Your task to perform on an android device: turn on improve location accuracy Image 0: 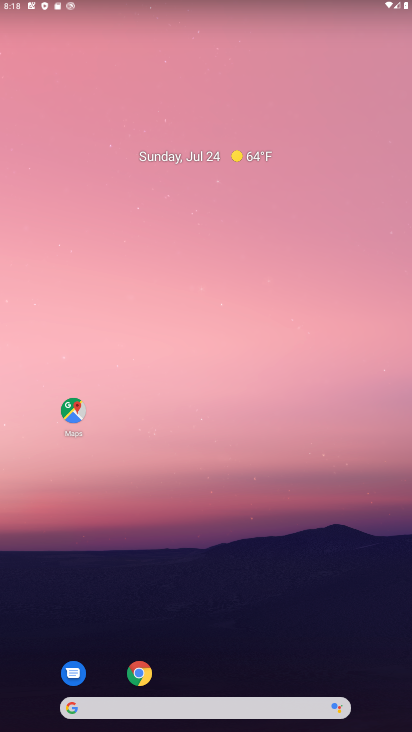
Step 0: drag from (381, 553) to (302, 99)
Your task to perform on an android device: turn on improve location accuracy Image 1: 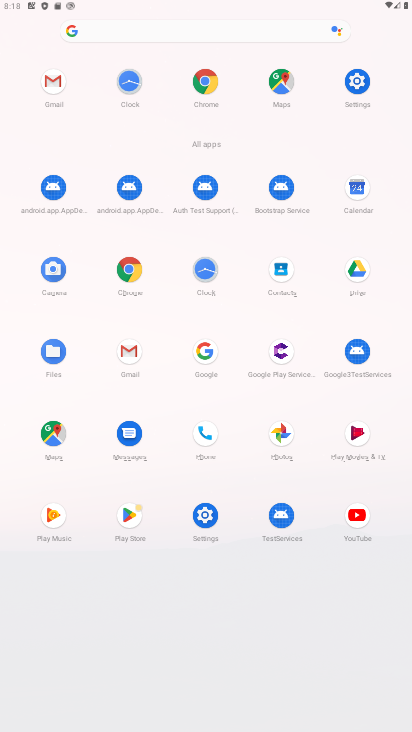
Step 1: click (200, 516)
Your task to perform on an android device: turn on improve location accuracy Image 2: 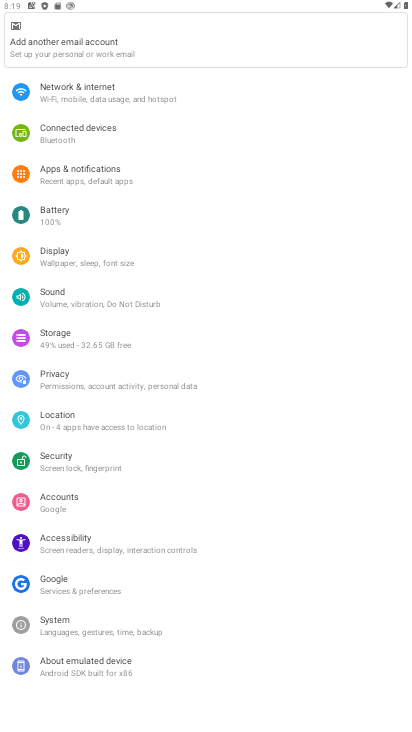
Step 2: click (106, 416)
Your task to perform on an android device: turn on improve location accuracy Image 3: 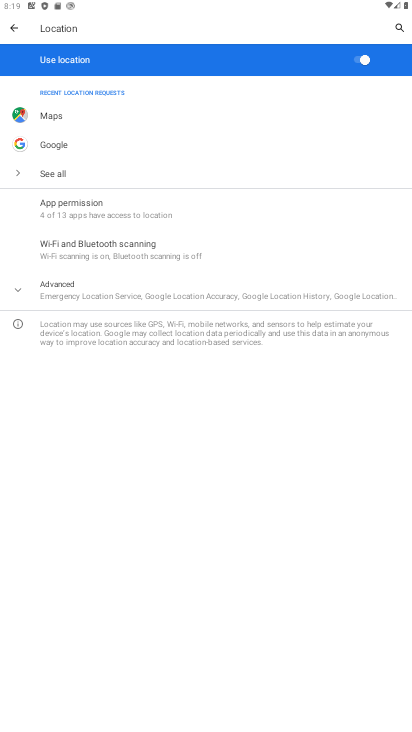
Step 3: click (135, 290)
Your task to perform on an android device: turn on improve location accuracy Image 4: 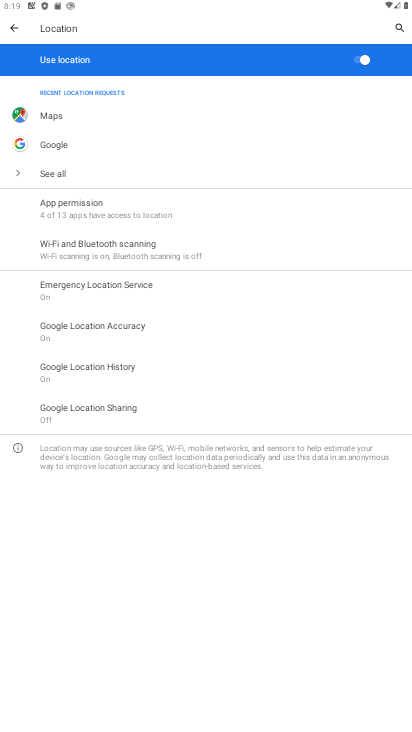
Step 4: click (139, 331)
Your task to perform on an android device: turn on improve location accuracy Image 5: 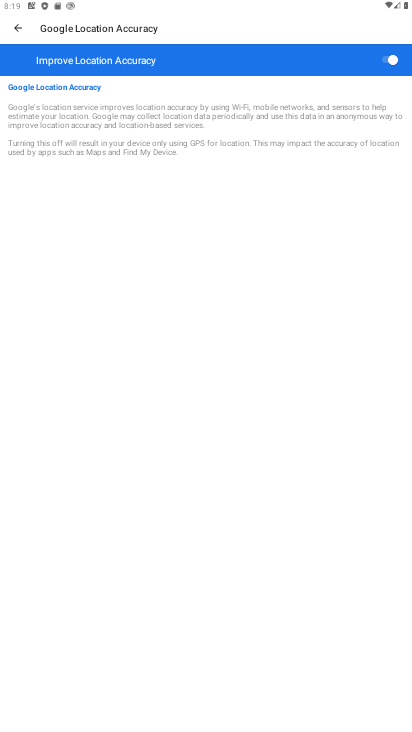
Step 5: task complete